Your task to perform on an android device: add a contact in the contacts app Image 0: 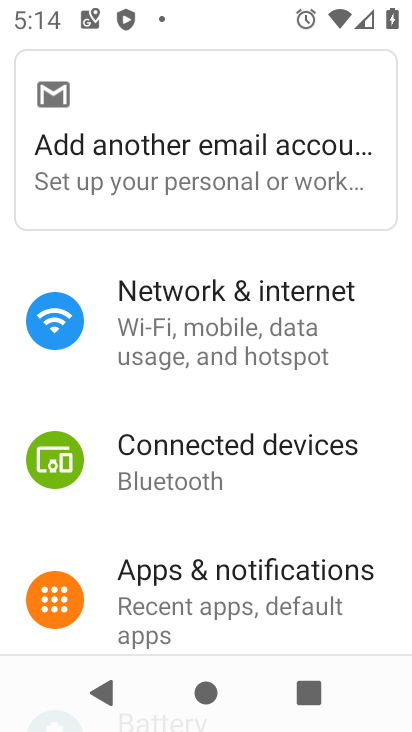
Step 0: press home button
Your task to perform on an android device: add a contact in the contacts app Image 1: 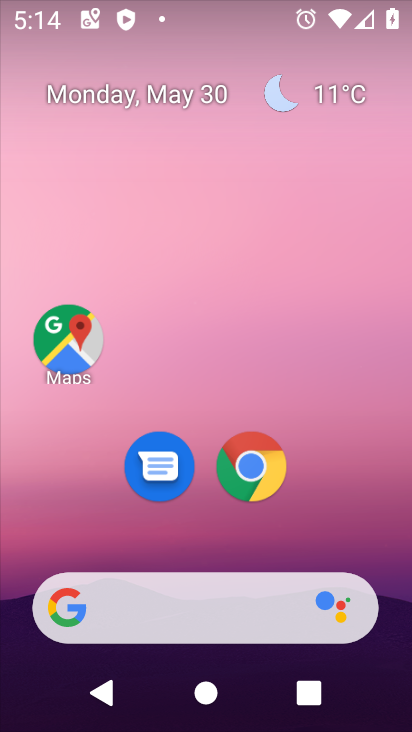
Step 1: drag from (300, 338) to (256, 16)
Your task to perform on an android device: add a contact in the contacts app Image 2: 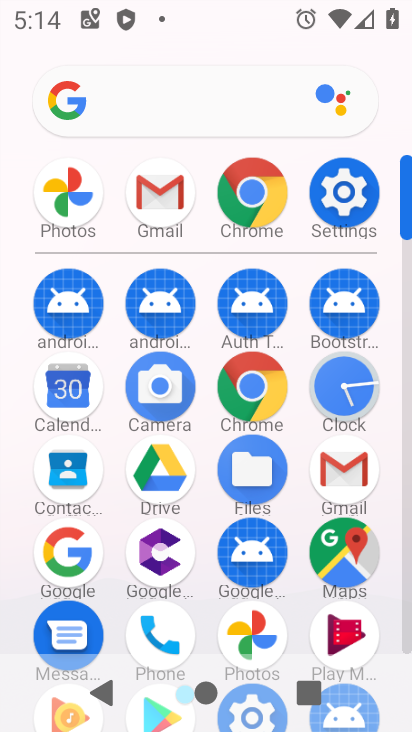
Step 2: click (71, 385)
Your task to perform on an android device: add a contact in the contacts app Image 3: 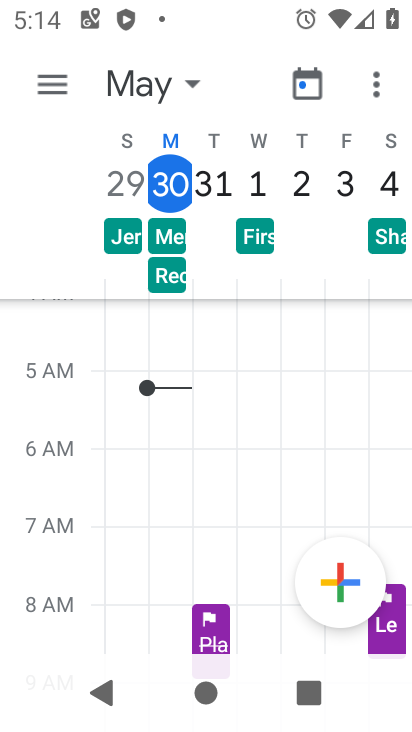
Step 3: press home button
Your task to perform on an android device: add a contact in the contacts app Image 4: 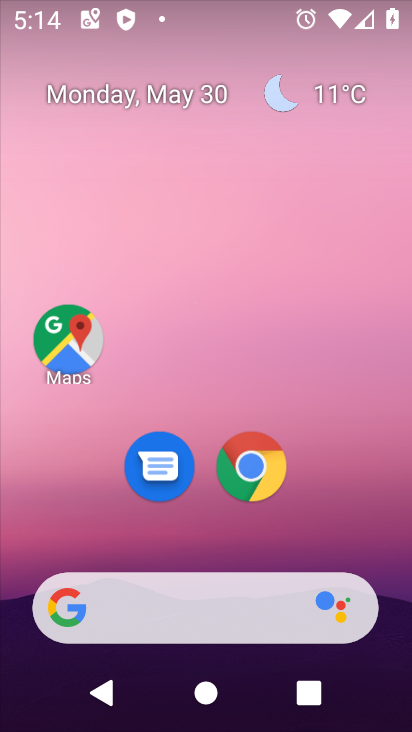
Step 4: drag from (341, 537) to (243, 60)
Your task to perform on an android device: add a contact in the contacts app Image 5: 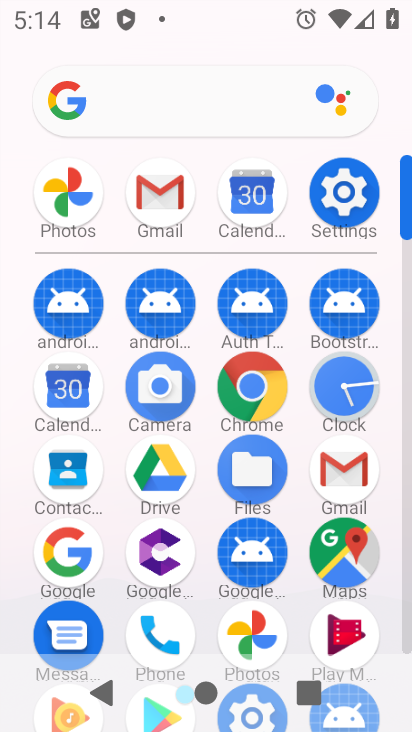
Step 5: click (67, 479)
Your task to perform on an android device: add a contact in the contacts app Image 6: 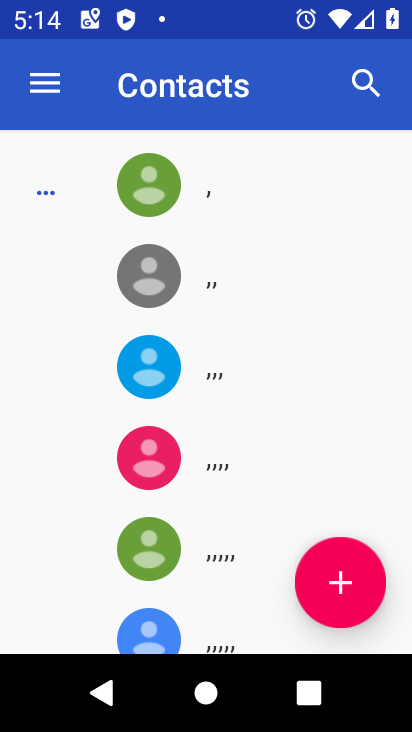
Step 6: click (324, 588)
Your task to perform on an android device: add a contact in the contacts app Image 7: 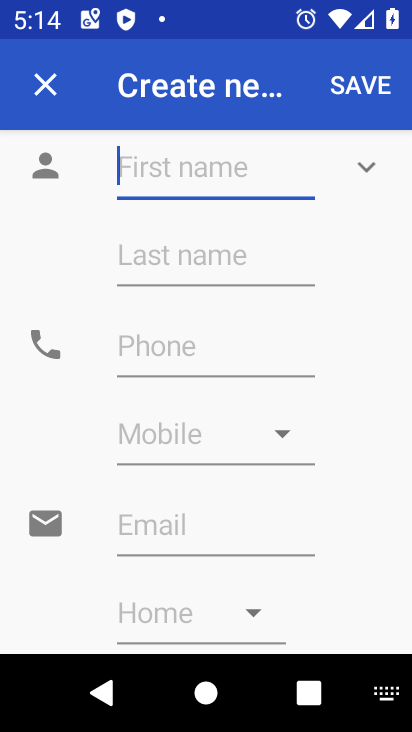
Step 7: type "group"
Your task to perform on an android device: add a contact in the contacts app Image 8: 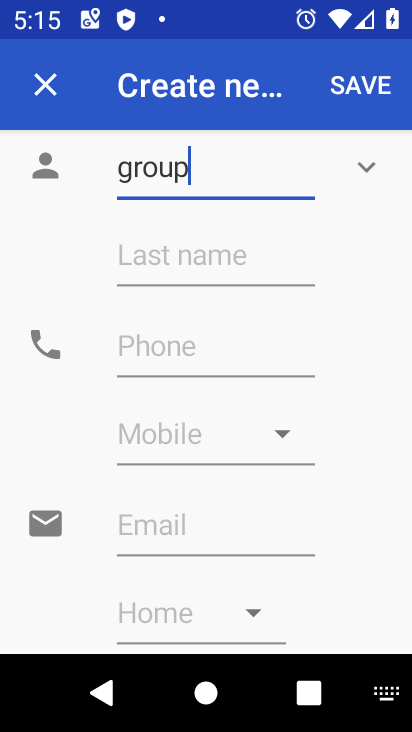
Step 8: click (373, 92)
Your task to perform on an android device: add a contact in the contacts app Image 9: 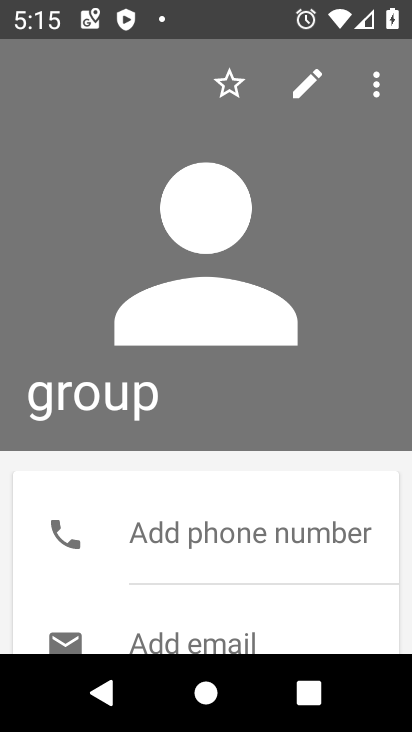
Step 9: task complete